Your task to perform on an android device: check android version Image 0: 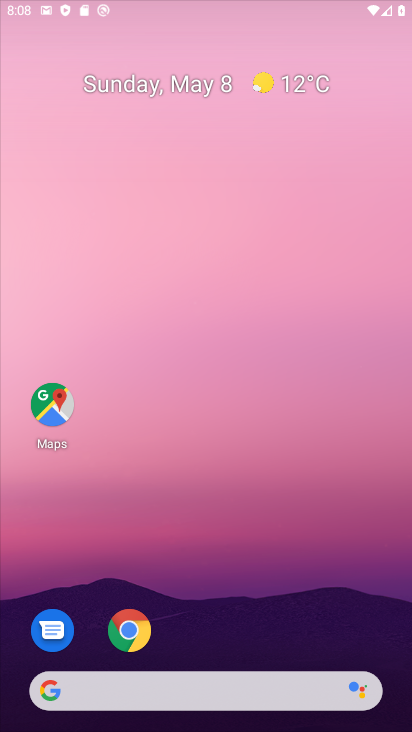
Step 0: drag from (276, 541) to (248, 225)
Your task to perform on an android device: check android version Image 1: 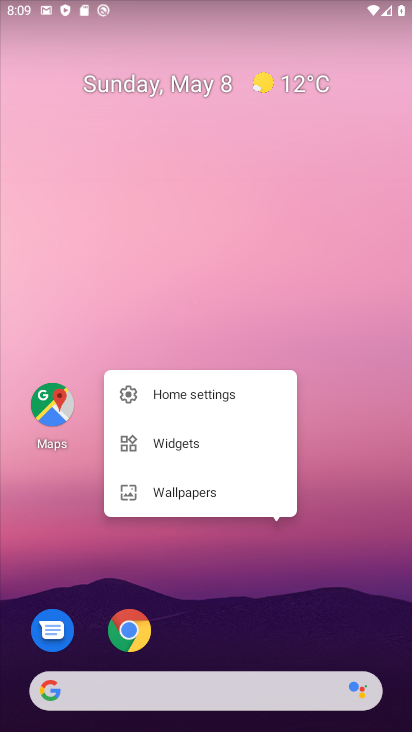
Step 1: drag from (333, 265) to (365, 5)
Your task to perform on an android device: check android version Image 2: 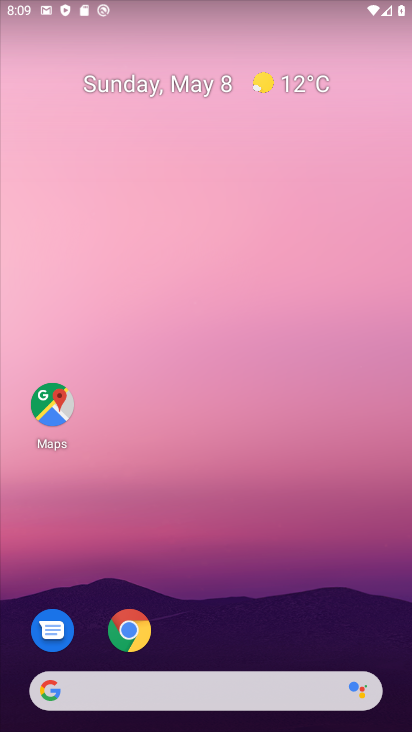
Step 2: drag from (210, 593) to (245, 49)
Your task to perform on an android device: check android version Image 3: 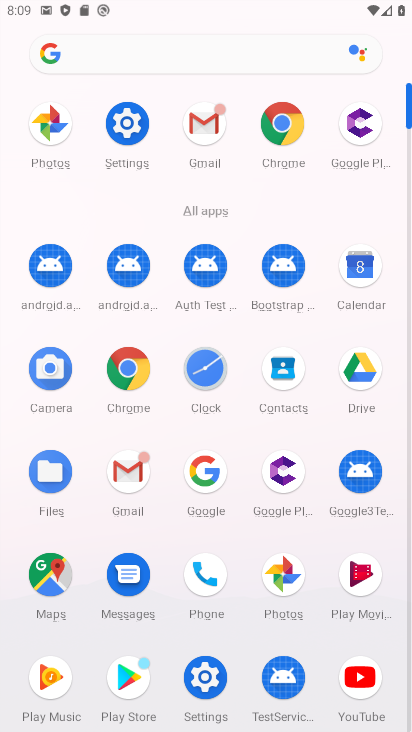
Step 3: click (127, 120)
Your task to perform on an android device: check android version Image 4: 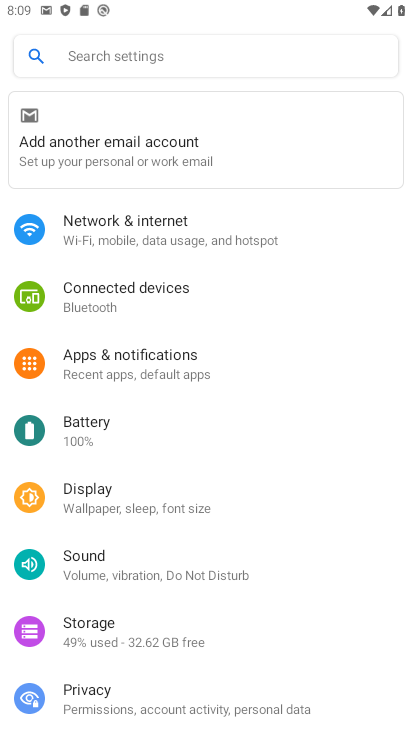
Step 4: drag from (302, 592) to (302, 330)
Your task to perform on an android device: check android version Image 5: 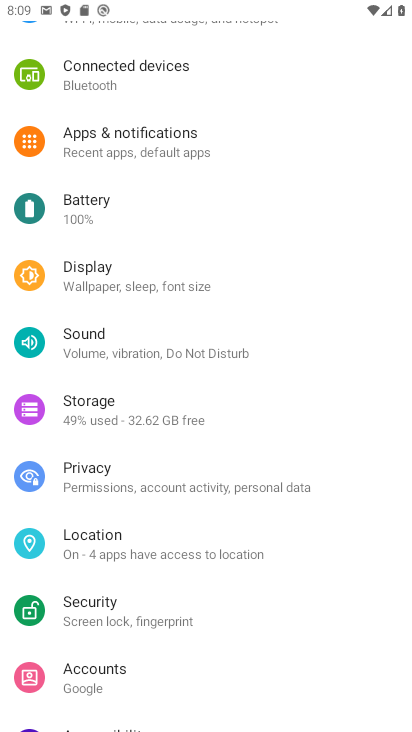
Step 5: drag from (269, 542) to (269, 278)
Your task to perform on an android device: check android version Image 6: 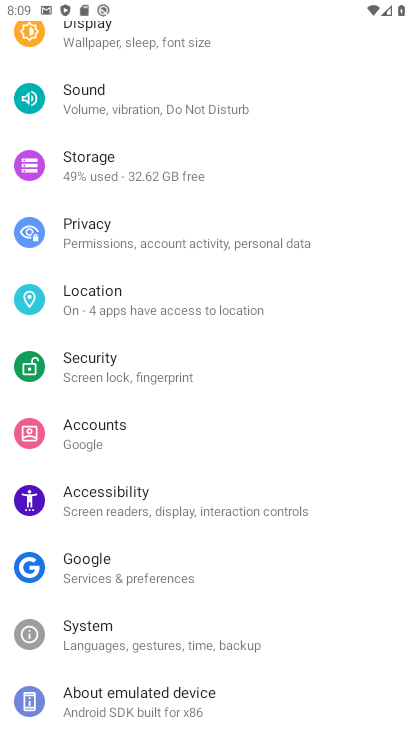
Step 6: click (155, 716)
Your task to perform on an android device: check android version Image 7: 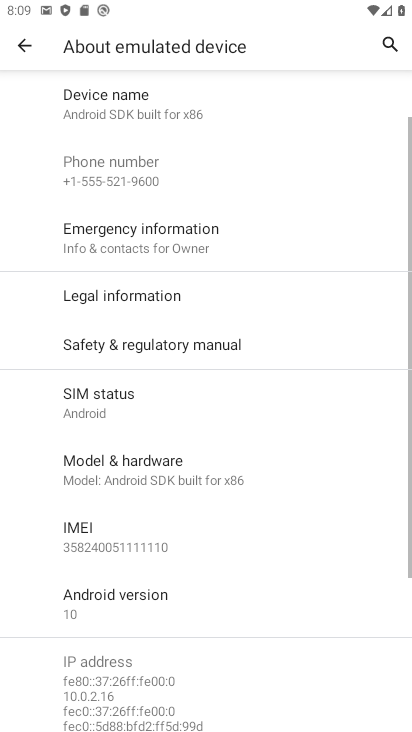
Step 7: click (120, 607)
Your task to perform on an android device: check android version Image 8: 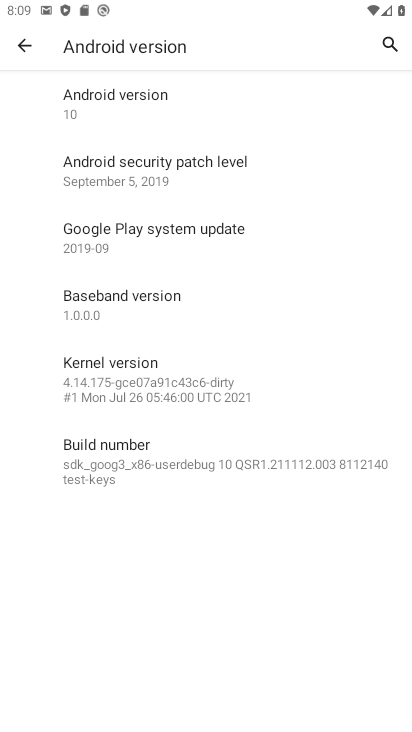
Step 8: task complete